Your task to perform on an android device: Open the phone app and click the voicemail tab. Image 0: 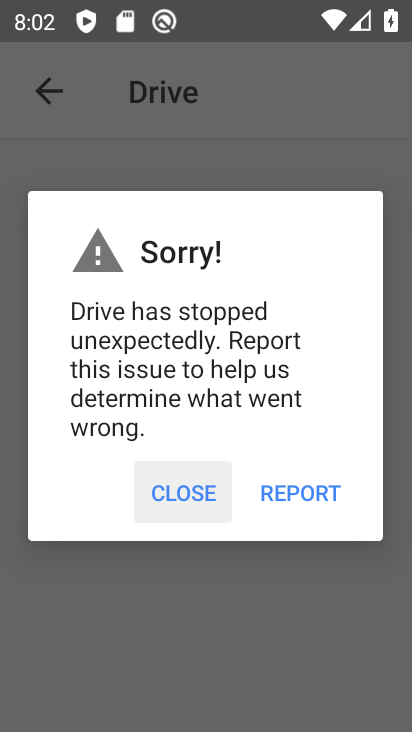
Step 0: press home button
Your task to perform on an android device: Open the phone app and click the voicemail tab. Image 1: 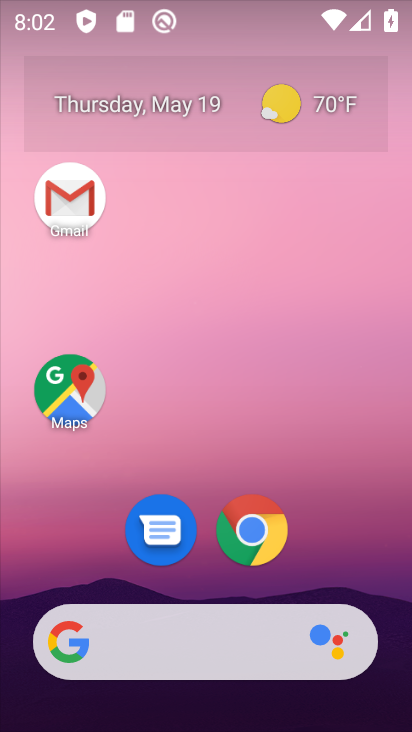
Step 1: drag from (298, 583) to (323, 97)
Your task to perform on an android device: Open the phone app and click the voicemail tab. Image 2: 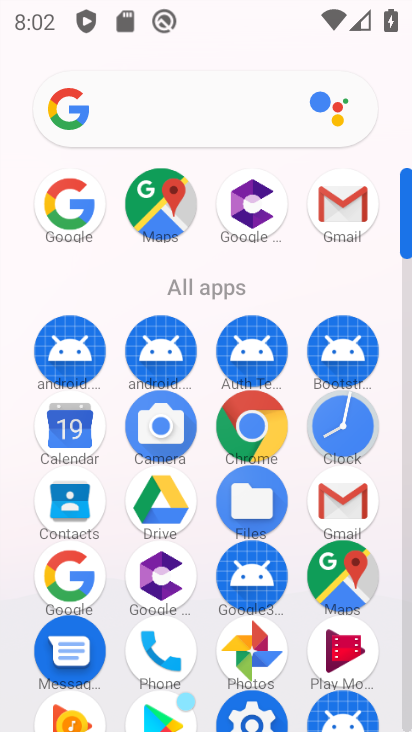
Step 2: click (162, 643)
Your task to perform on an android device: Open the phone app and click the voicemail tab. Image 3: 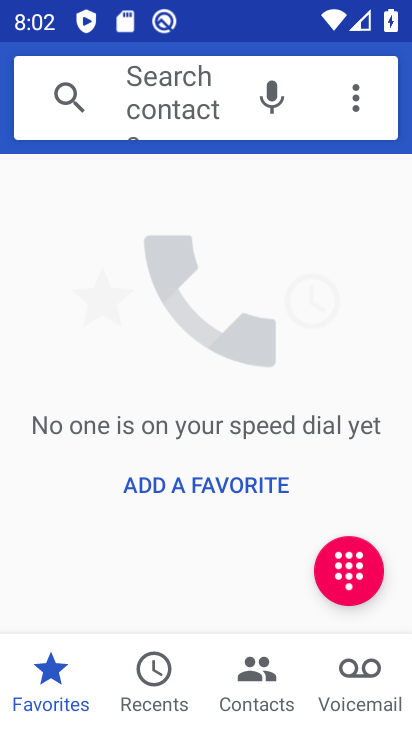
Step 3: click (364, 661)
Your task to perform on an android device: Open the phone app and click the voicemail tab. Image 4: 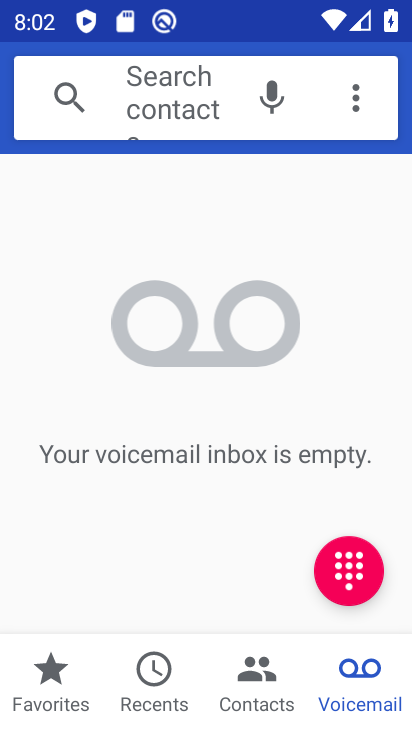
Step 4: task complete